Your task to perform on an android device: turn on wifi Image 0: 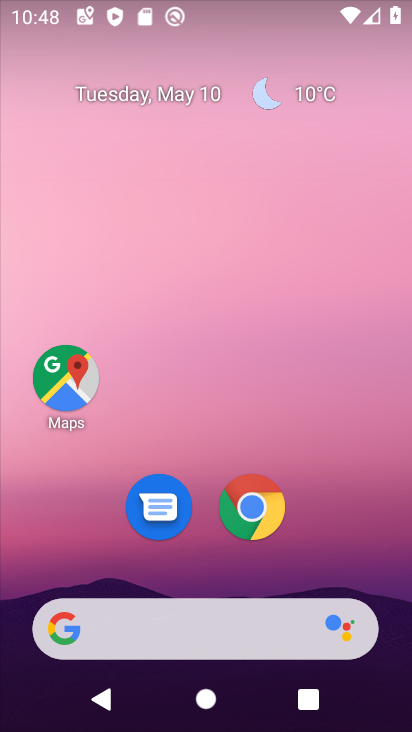
Step 0: drag from (227, 726) to (248, 75)
Your task to perform on an android device: turn on wifi Image 1: 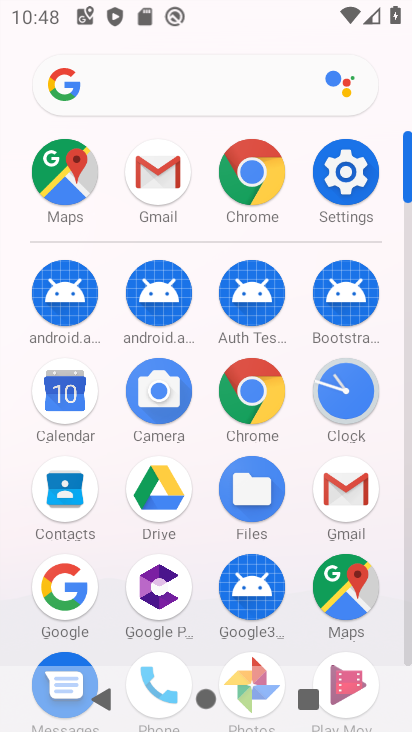
Step 1: click (350, 170)
Your task to perform on an android device: turn on wifi Image 2: 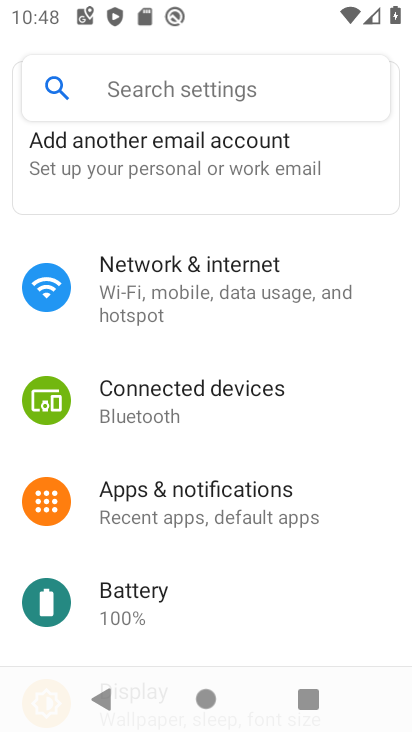
Step 2: click (182, 291)
Your task to perform on an android device: turn on wifi Image 3: 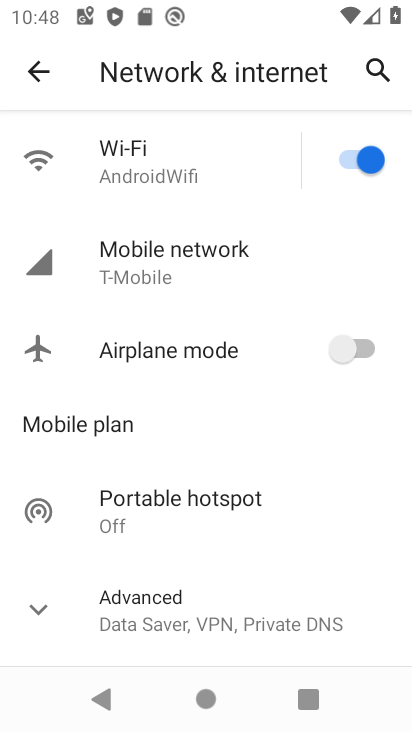
Step 3: task complete